Your task to perform on an android device: turn off smart reply in the gmail app Image 0: 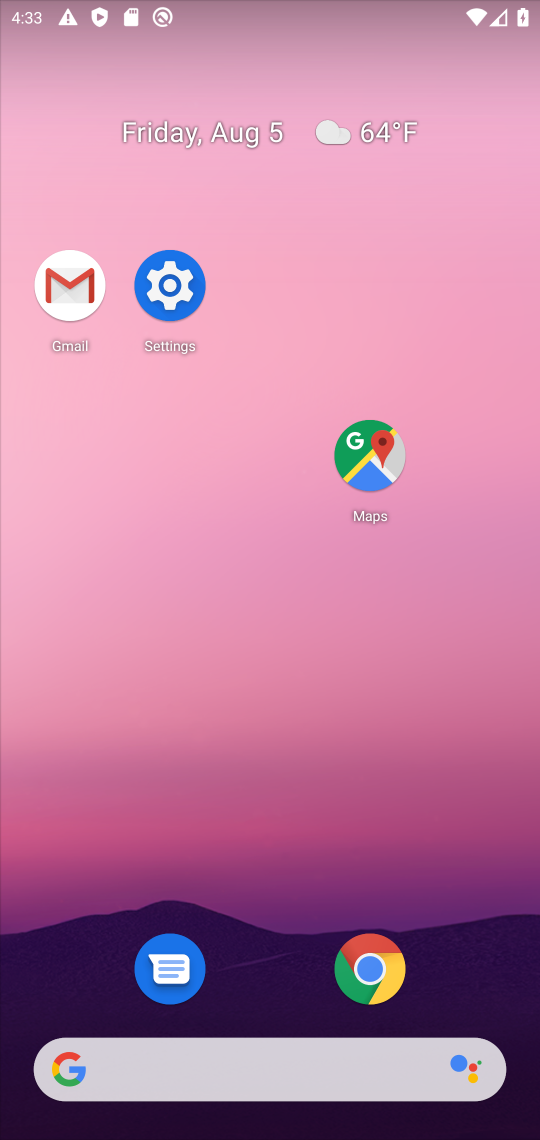
Step 0: click (282, 394)
Your task to perform on an android device: turn off smart reply in the gmail app Image 1: 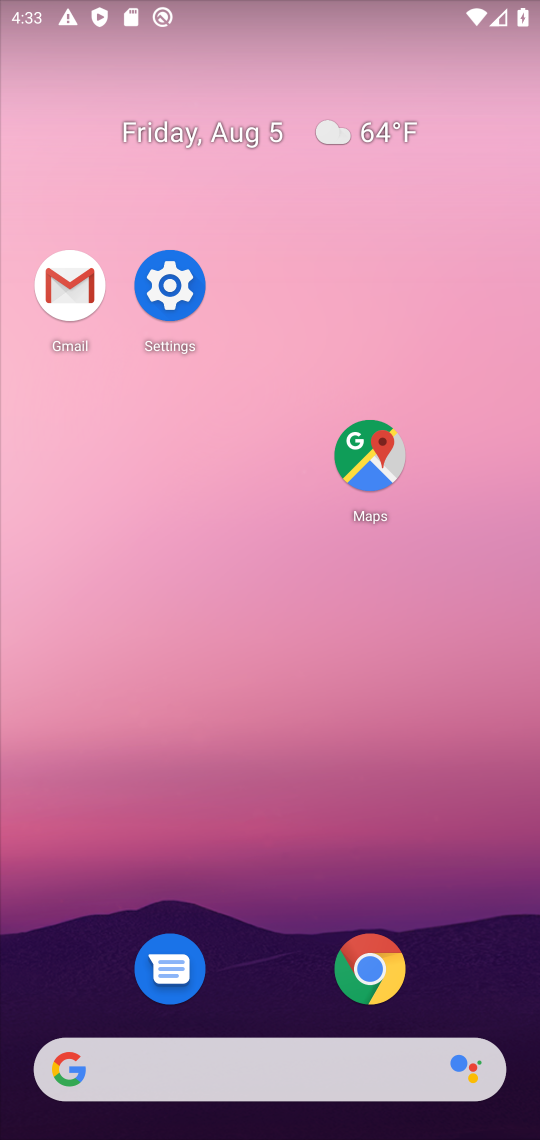
Step 1: click (75, 320)
Your task to perform on an android device: turn off smart reply in the gmail app Image 2: 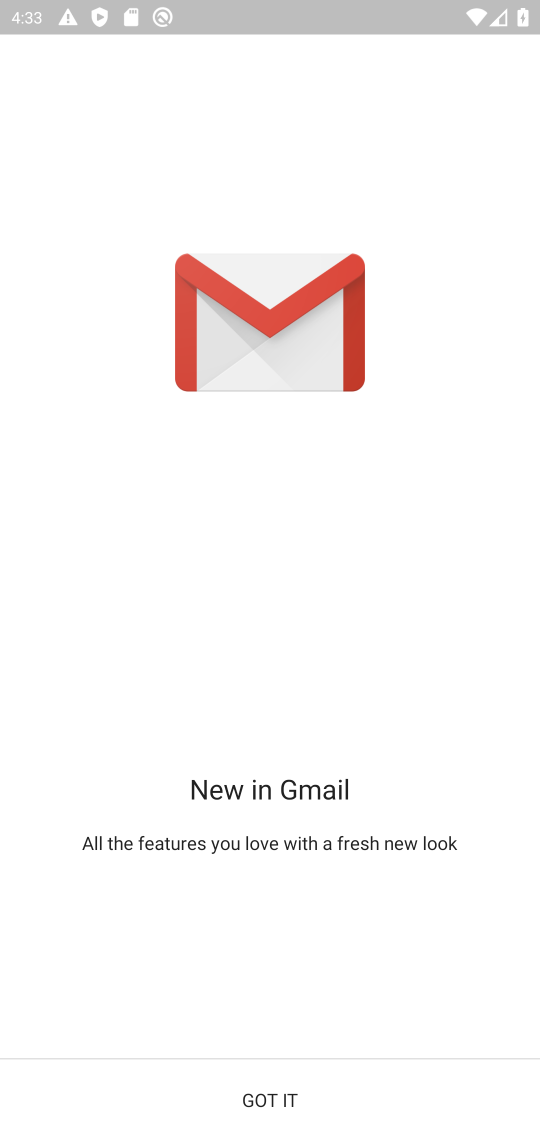
Step 2: click (256, 1115)
Your task to perform on an android device: turn off smart reply in the gmail app Image 3: 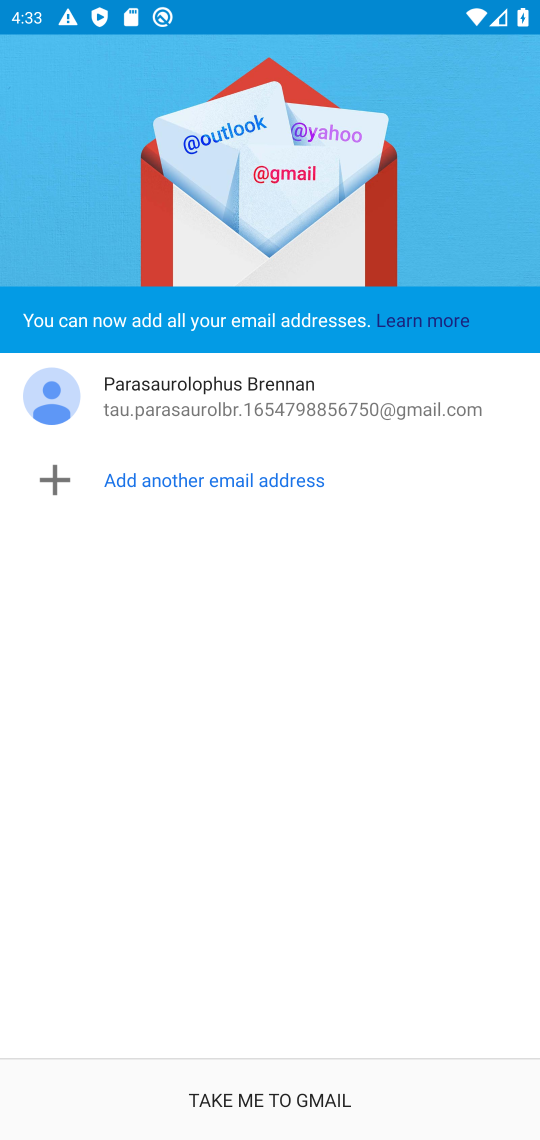
Step 3: click (250, 1116)
Your task to perform on an android device: turn off smart reply in the gmail app Image 4: 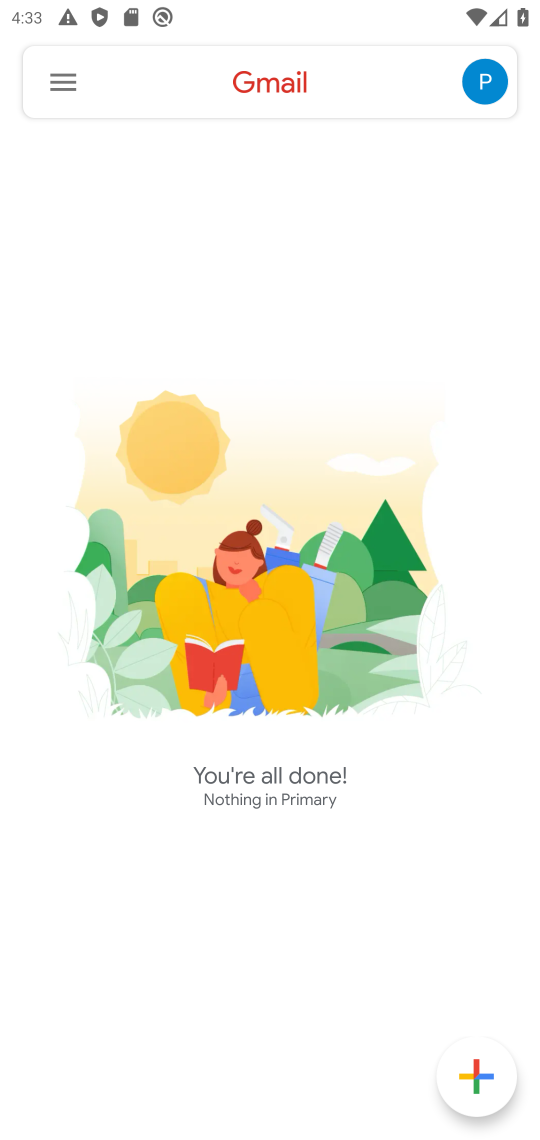
Step 4: click (56, 81)
Your task to perform on an android device: turn off smart reply in the gmail app Image 5: 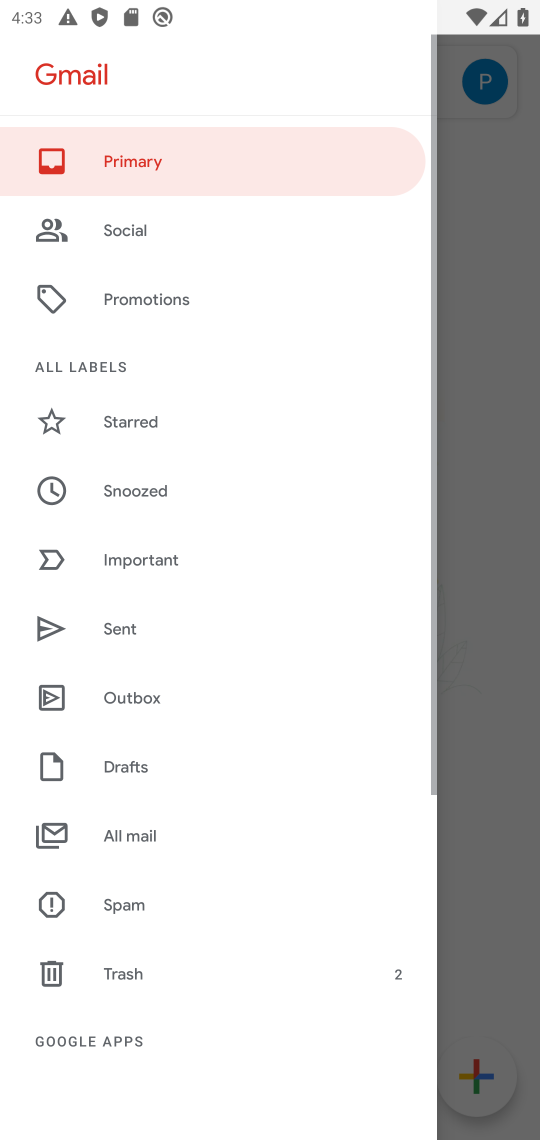
Step 5: drag from (184, 871) to (205, 470)
Your task to perform on an android device: turn off smart reply in the gmail app Image 6: 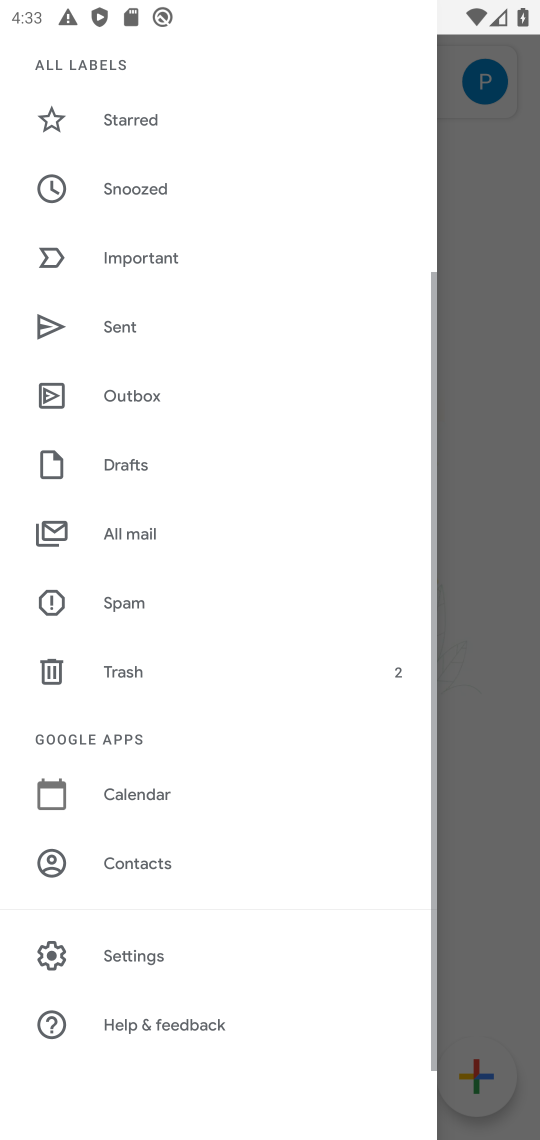
Step 6: click (159, 932)
Your task to perform on an android device: turn off smart reply in the gmail app Image 7: 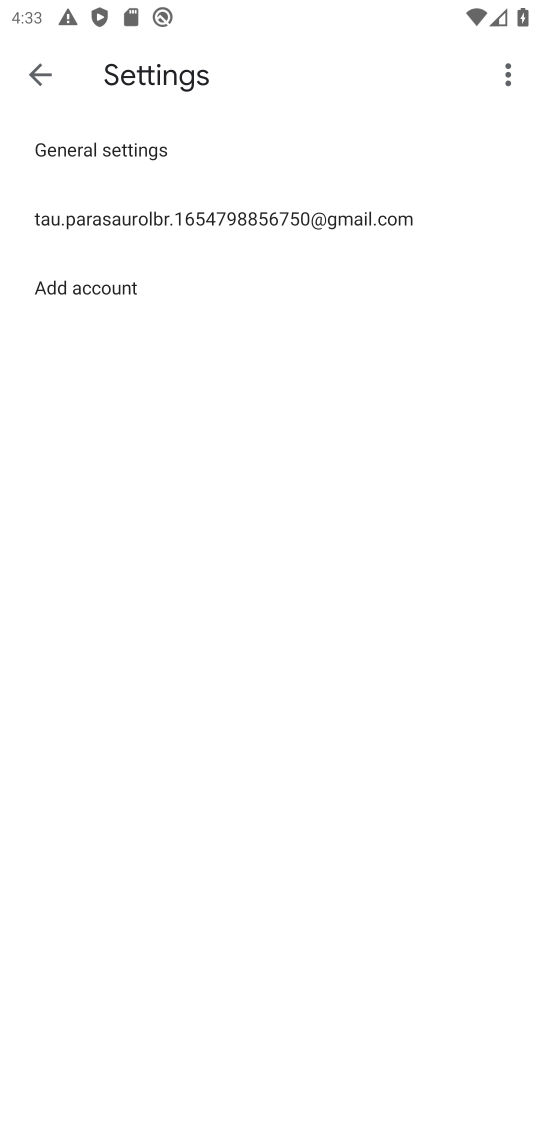
Step 7: click (203, 204)
Your task to perform on an android device: turn off smart reply in the gmail app Image 8: 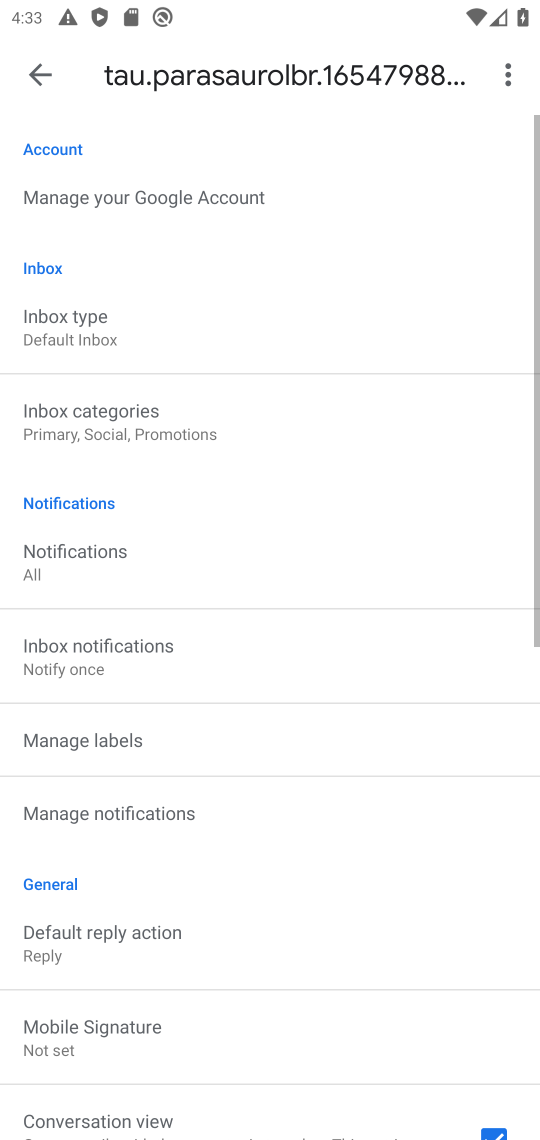
Step 8: drag from (224, 774) to (252, 383)
Your task to perform on an android device: turn off smart reply in the gmail app Image 9: 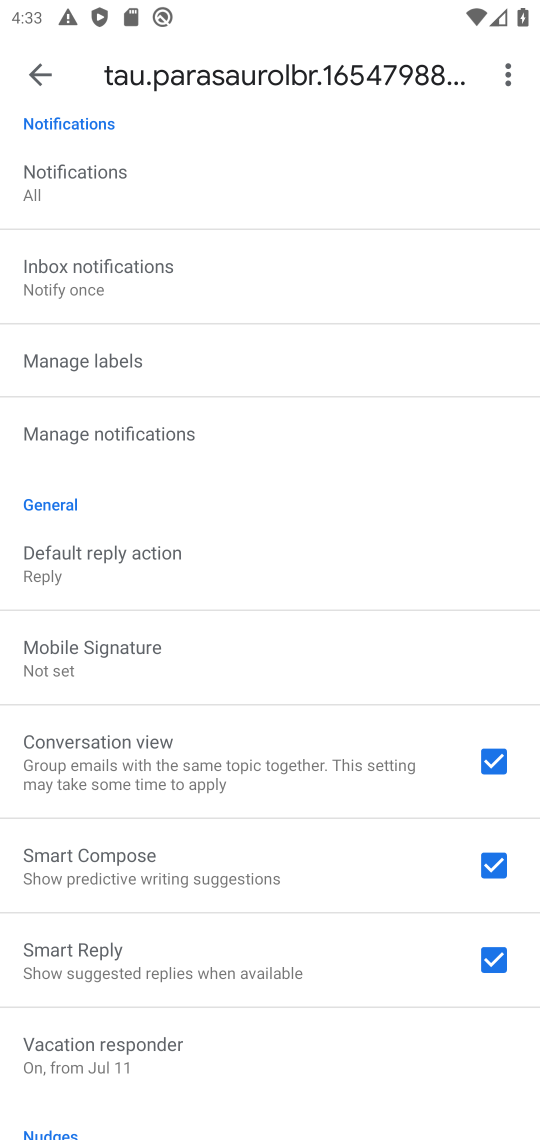
Step 9: click (493, 954)
Your task to perform on an android device: turn off smart reply in the gmail app Image 10: 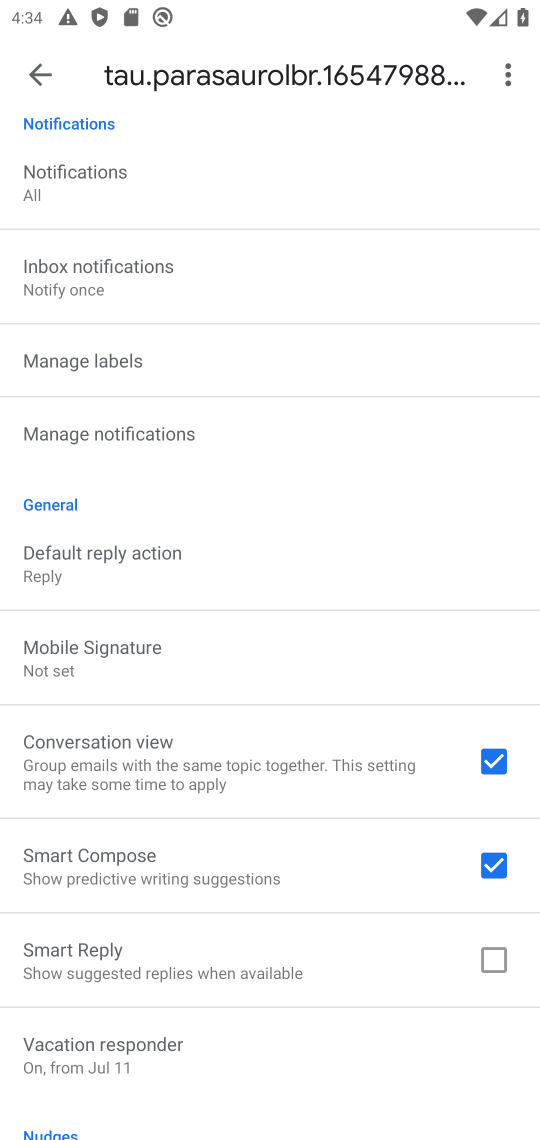
Step 10: task complete